Your task to perform on an android device: Go to sound settings Image 0: 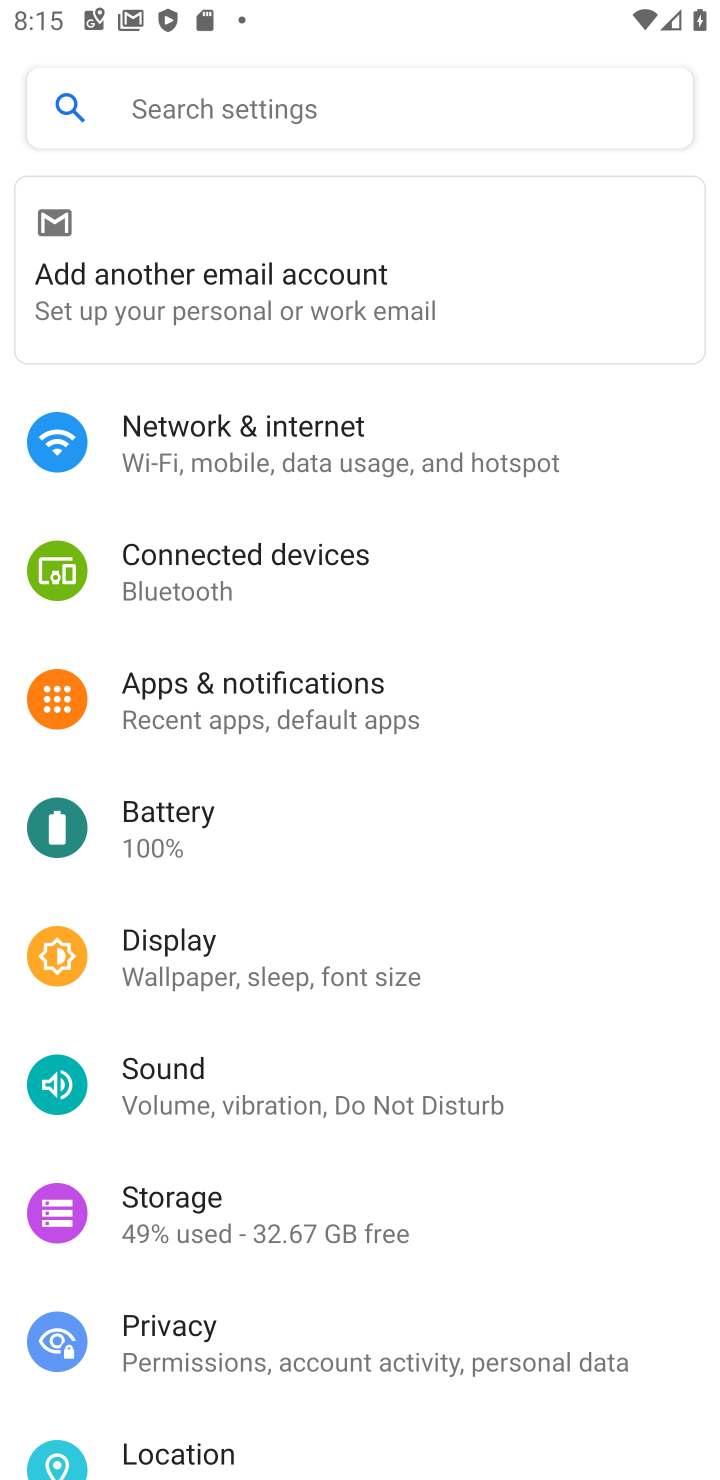
Step 0: click (211, 1077)
Your task to perform on an android device: Go to sound settings Image 1: 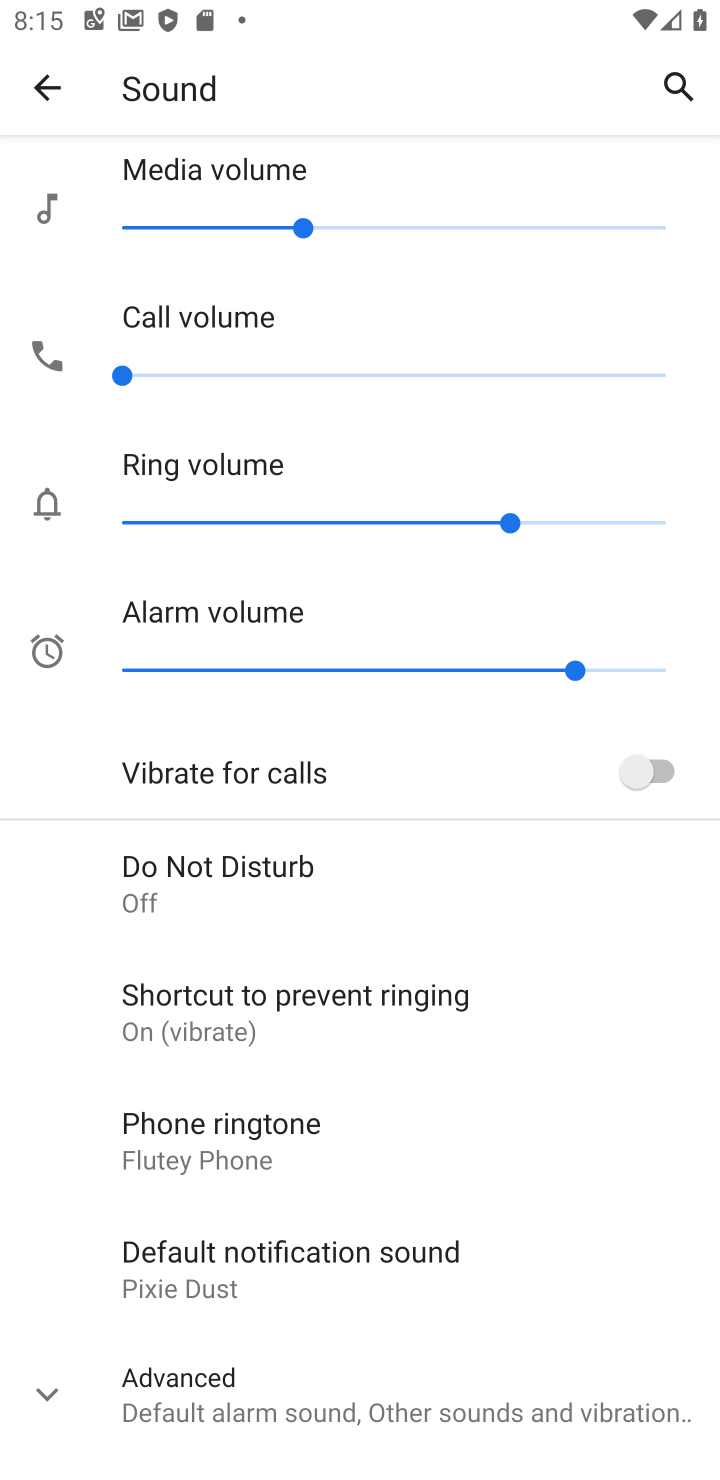
Step 1: task complete